Your task to perform on an android device: Open accessibility settings Image 0: 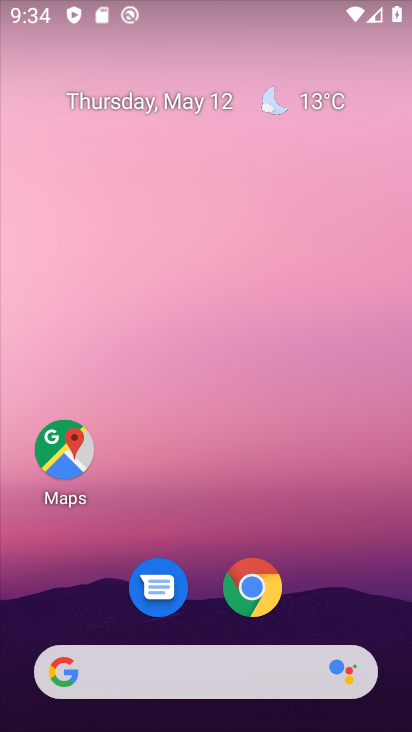
Step 0: drag from (356, 575) to (327, 0)
Your task to perform on an android device: Open accessibility settings Image 1: 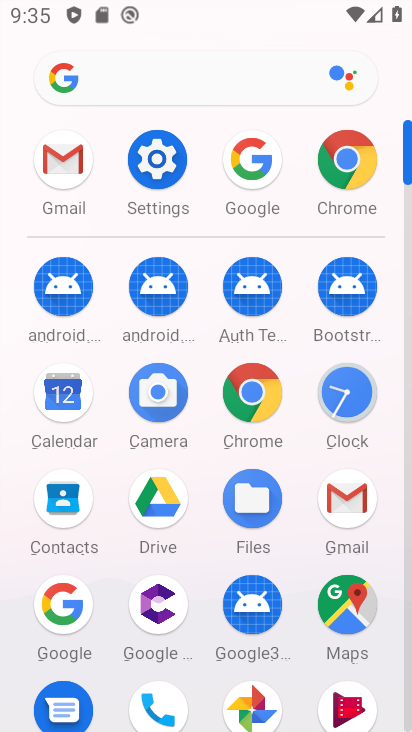
Step 1: click (152, 179)
Your task to perform on an android device: Open accessibility settings Image 2: 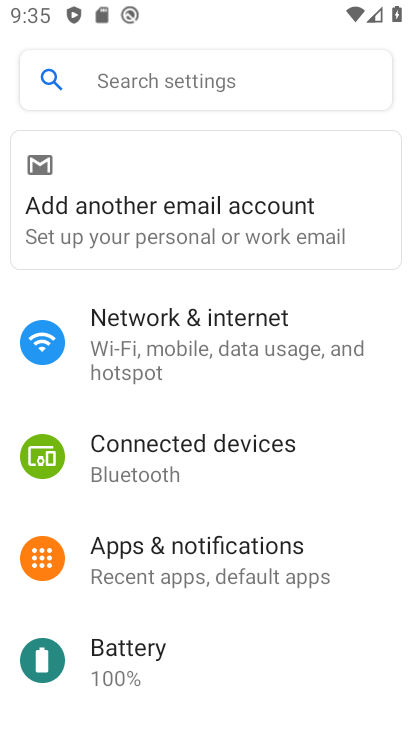
Step 2: drag from (225, 593) to (212, 148)
Your task to perform on an android device: Open accessibility settings Image 3: 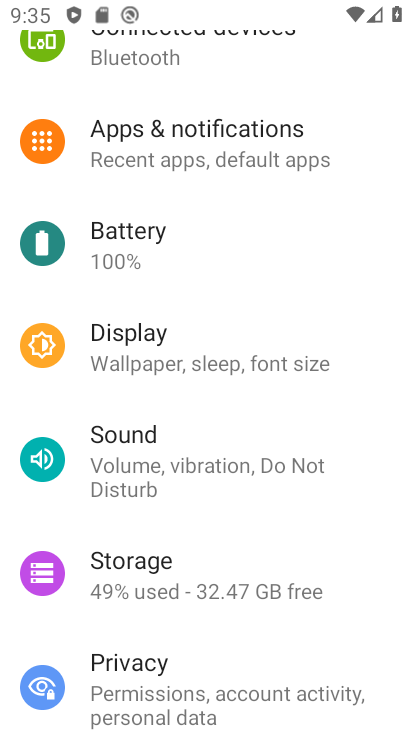
Step 3: drag from (256, 598) to (277, 171)
Your task to perform on an android device: Open accessibility settings Image 4: 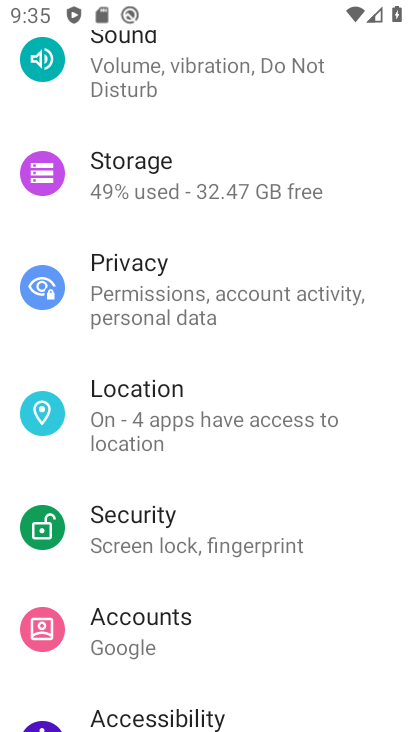
Step 4: drag from (188, 636) to (251, 125)
Your task to perform on an android device: Open accessibility settings Image 5: 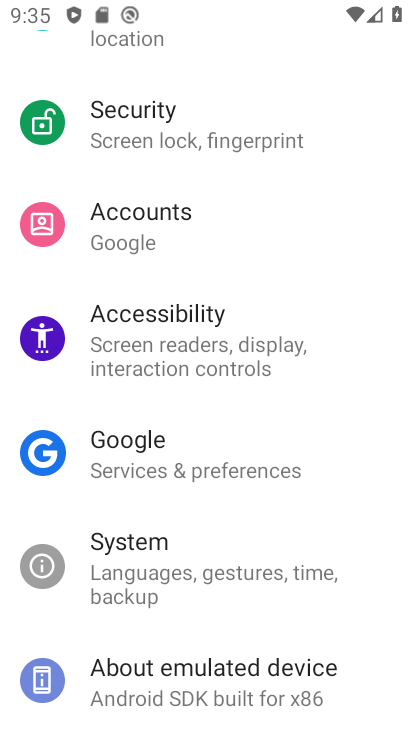
Step 5: click (199, 331)
Your task to perform on an android device: Open accessibility settings Image 6: 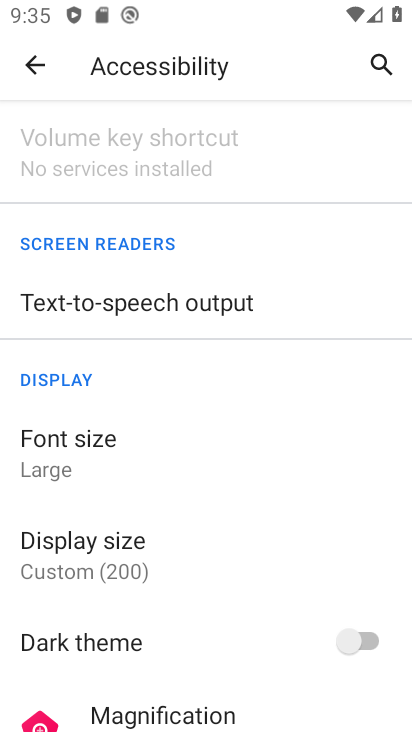
Step 6: task complete